Your task to perform on an android device: turn off sleep mode Image 0: 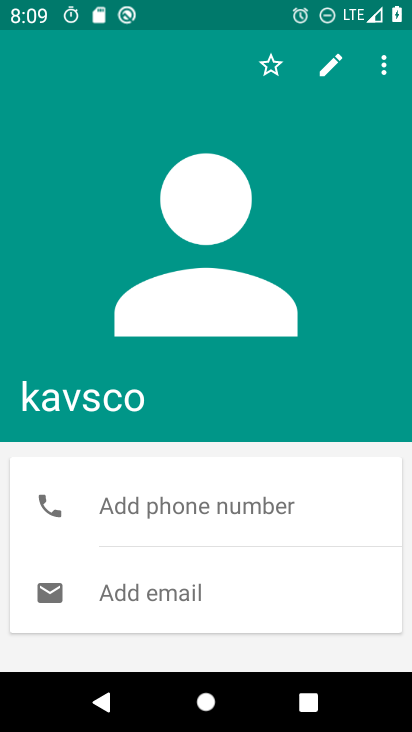
Step 0: press home button
Your task to perform on an android device: turn off sleep mode Image 1: 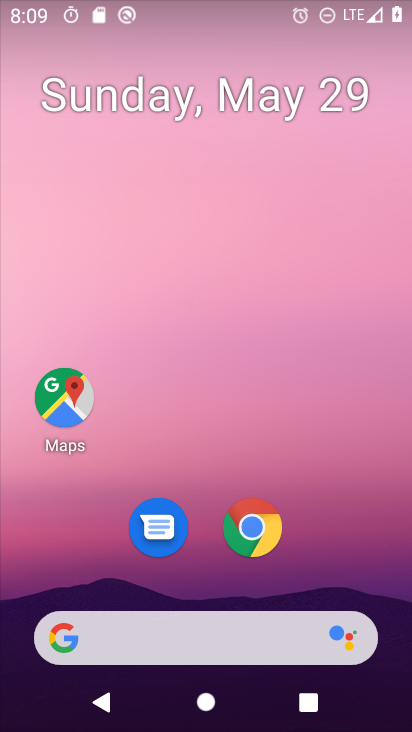
Step 1: drag from (383, 634) to (318, 95)
Your task to perform on an android device: turn off sleep mode Image 2: 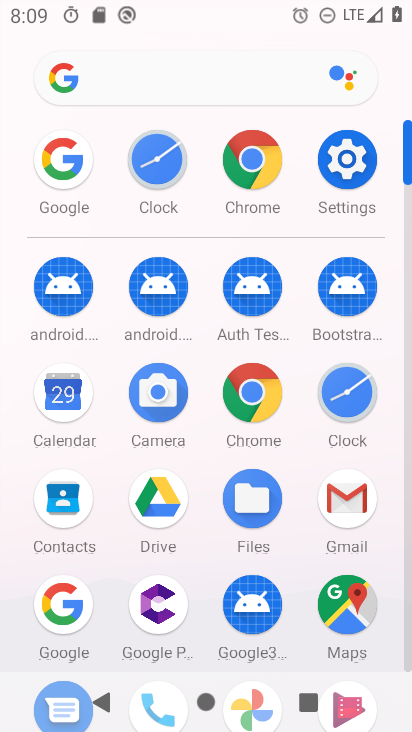
Step 2: click (340, 180)
Your task to perform on an android device: turn off sleep mode Image 3: 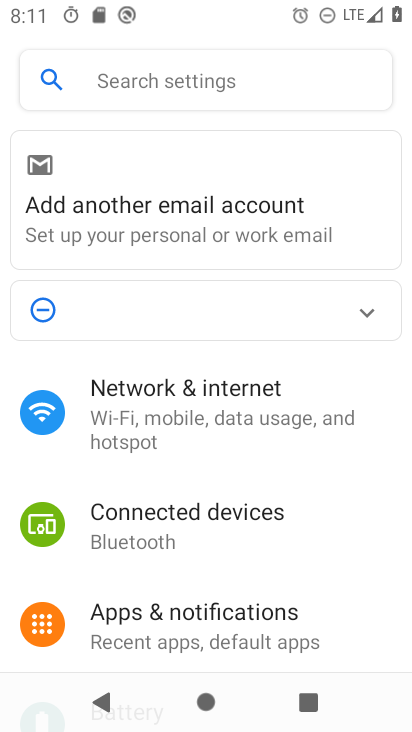
Step 3: task complete